Your task to perform on an android device: find which apps use the phone's location Image 0: 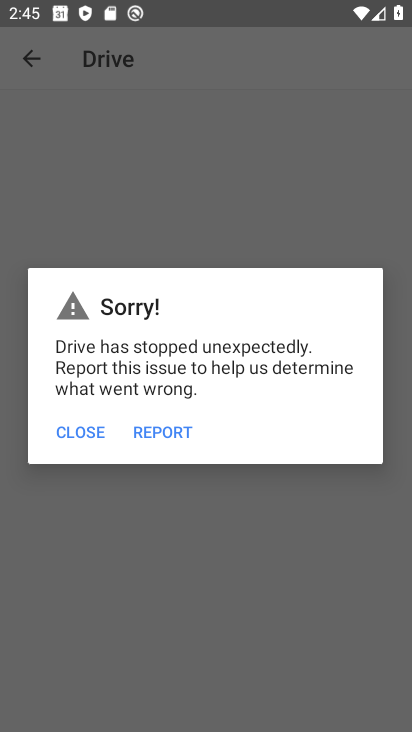
Step 0: press home button
Your task to perform on an android device: find which apps use the phone's location Image 1: 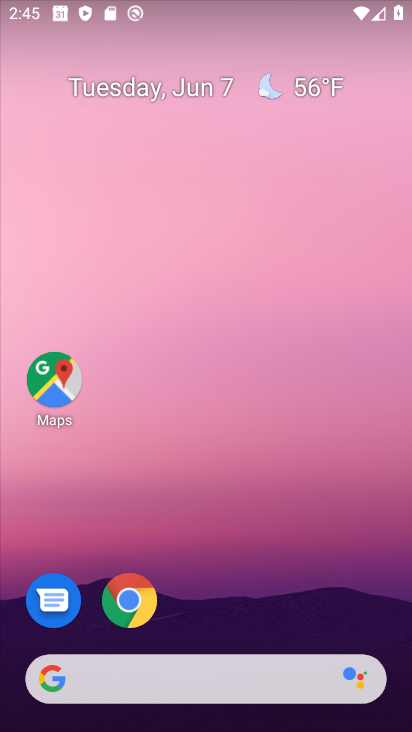
Step 1: drag from (385, 708) to (348, 78)
Your task to perform on an android device: find which apps use the phone's location Image 2: 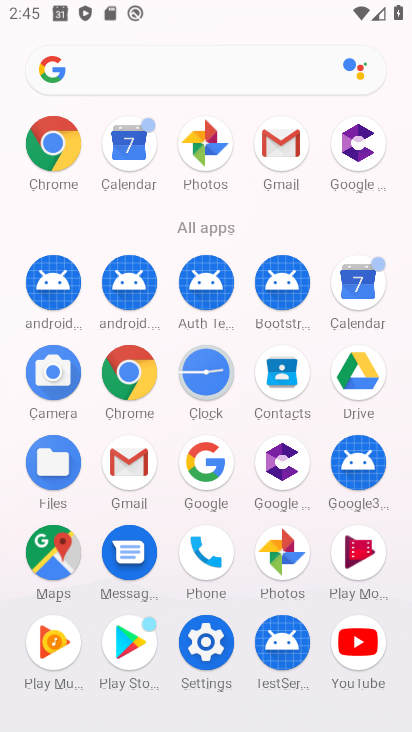
Step 2: click (198, 636)
Your task to perform on an android device: find which apps use the phone's location Image 3: 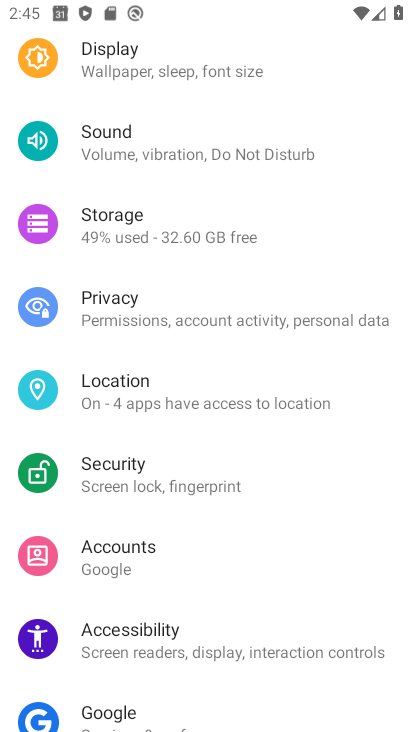
Step 3: drag from (268, 692) to (248, 193)
Your task to perform on an android device: find which apps use the phone's location Image 4: 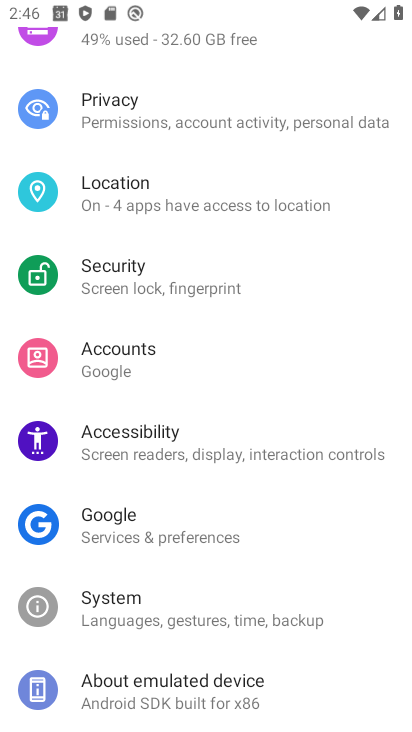
Step 4: click (175, 683)
Your task to perform on an android device: find which apps use the phone's location Image 5: 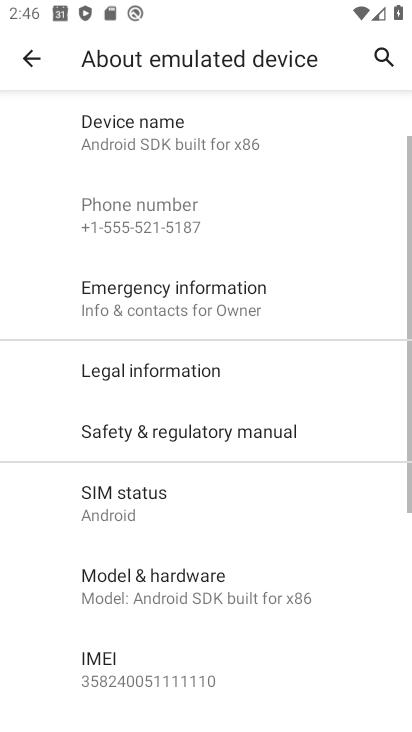
Step 5: press back button
Your task to perform on an android device: find which apps use the phone's location Image 6: 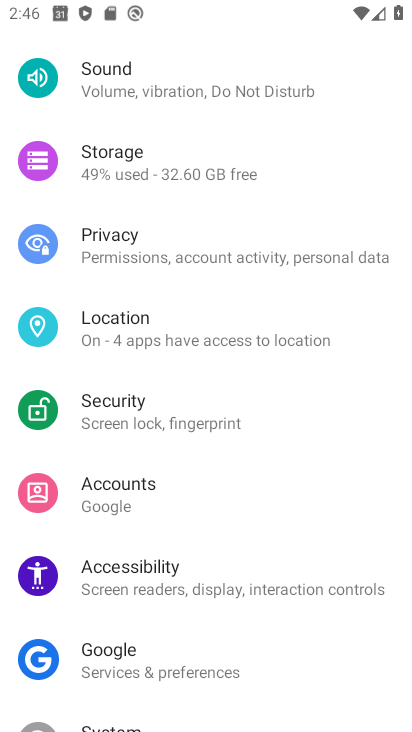
Step 6: drag from (256, 376) to (245, 306)
Your task to perform on an android device: find which apps use the phone's location Image 7: 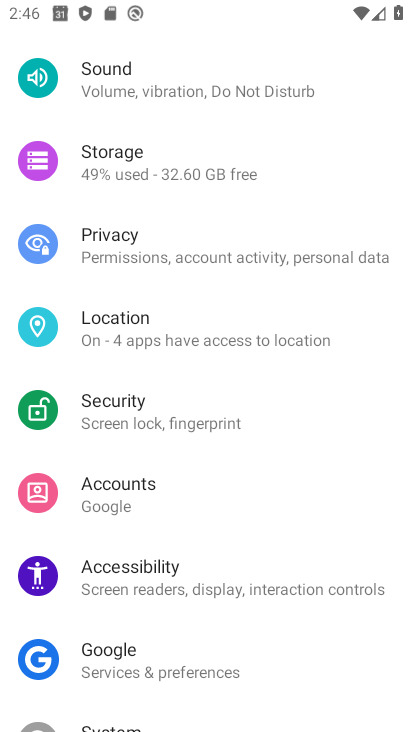
Step 7: click (105, 323)
Your task to perform on an android device: find which apps use the phone's location Image 8: 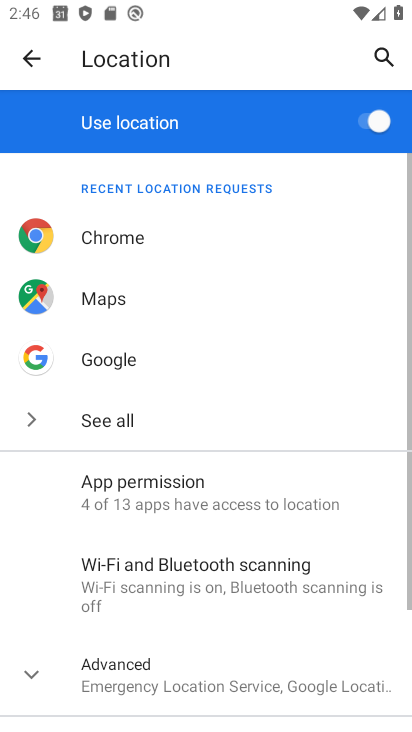
Step 8: click (94, 474)
Your task to perform on an android device: find which apps use the phone's location Image 9: 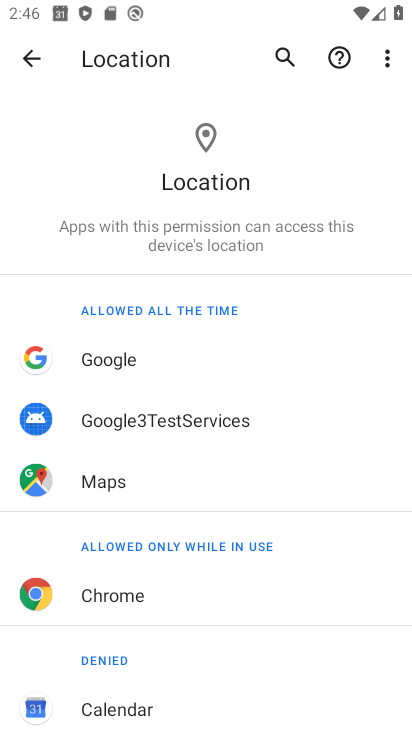
Step 9: task complete